Your task to perform on an android device: change alarm snooze length Image 0: 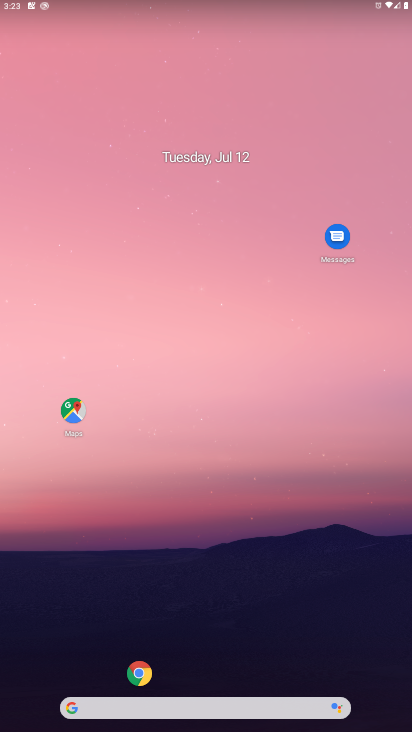
Step 0: click (213, 22)
Your task to perform on an android device: change alarm snooze length Image 1: 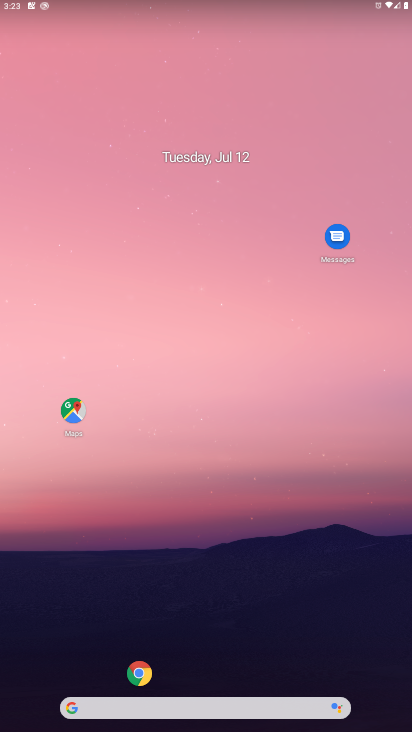
Step 1: drag from (34, 663) to (222, 62)
Your task to perform on an android device: change alarm snooze length Image 2: 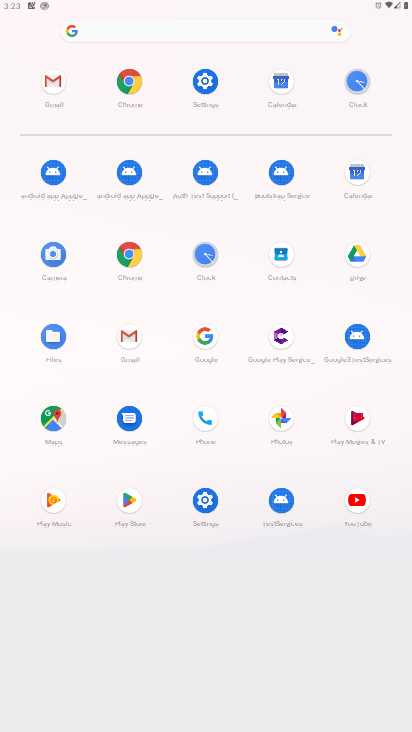
Step 2: click (209, 255)
Your task to perform on an android device: change alarm snooze length Image 3: 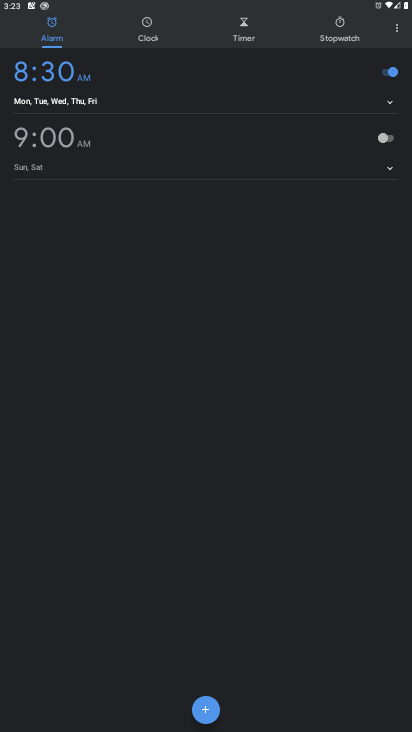
Step 3: click (398, 22)
Your task to perform on an android device: change alarm snooze length Image 4: 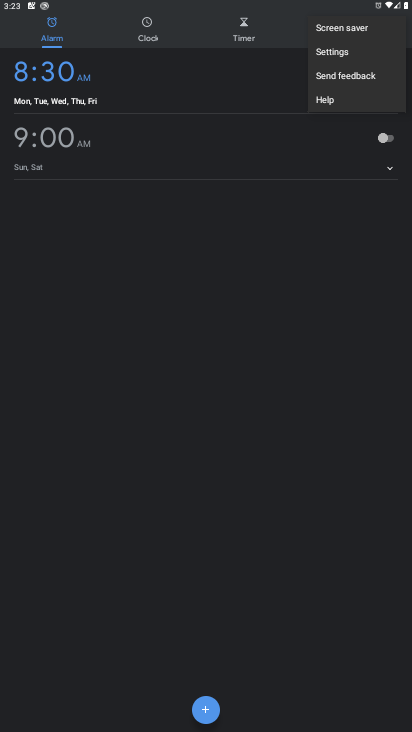
Step 4: click (341, 44)
Your task to perform on an android device: change alarm snooze length Image 5: 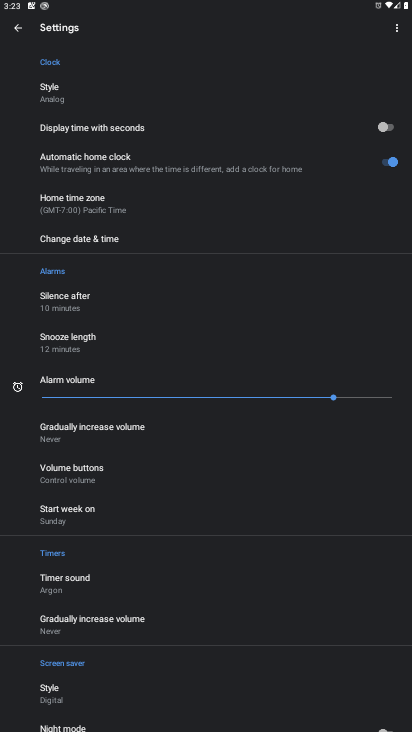
Step 5: click (95, 346)
Your task to perform on an android device: change alarm snooze length Image 6: 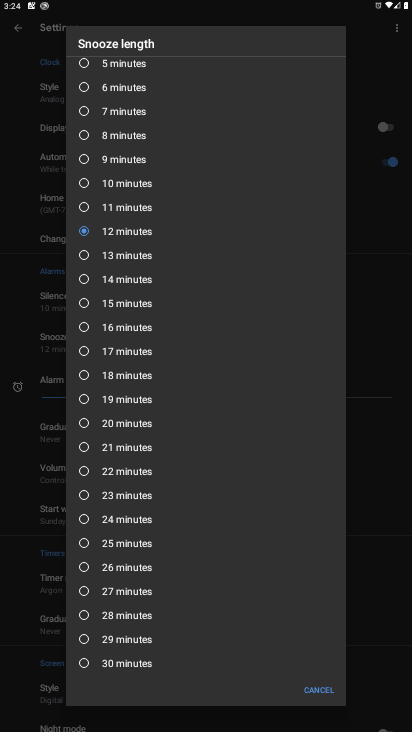
Step 6: click (88, 305)
Your task to perform on an android device: change alarm snooze length Image 7: 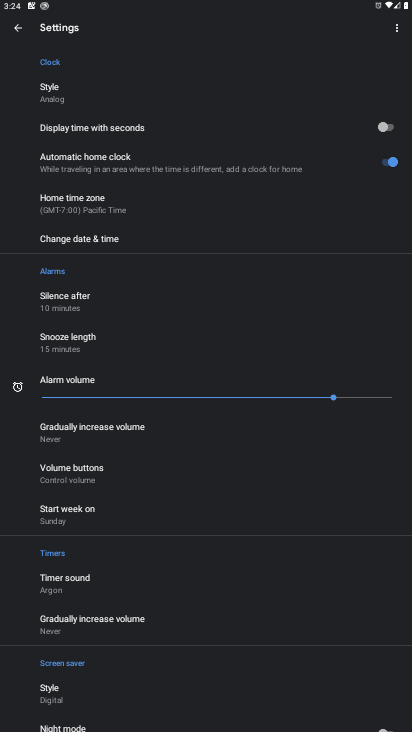
Step 7: task complete